Your task to perform on an android device: set the stopwatch Image 0: 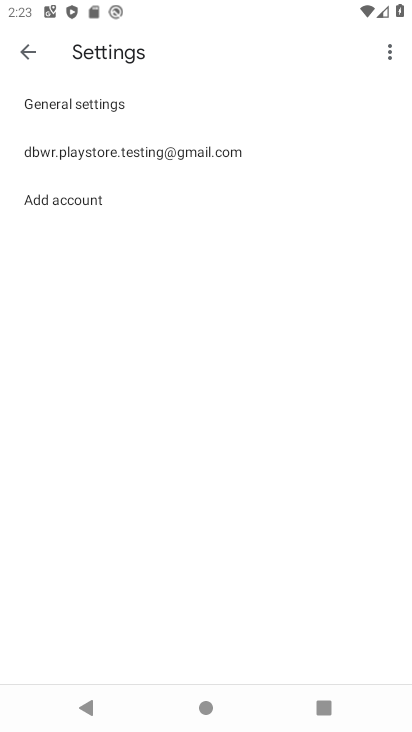
Step 0: press home button
Your task to perform on an android device: set the stopwatch Image 1: 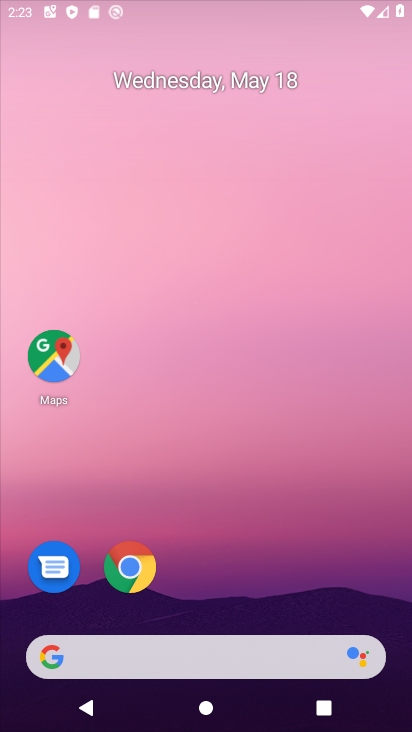
Step 1: drag from (219, 573) to (236, 188)
Your task to perform on an android device: set the stopwatch Image 2: 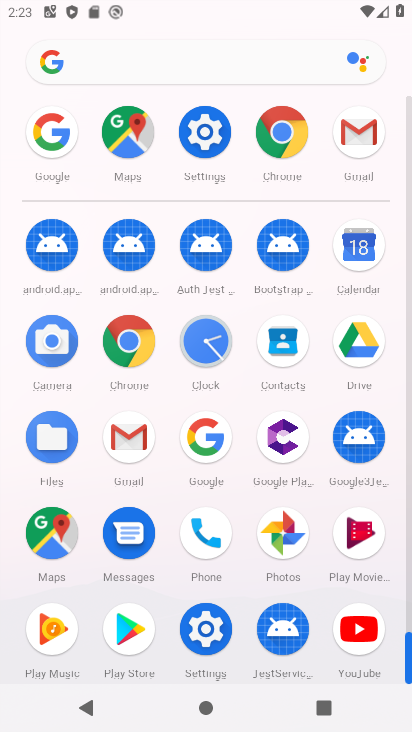
Step 2: click (184, 341)
Your task to perform on an android device: set the stopwatch Image 3: 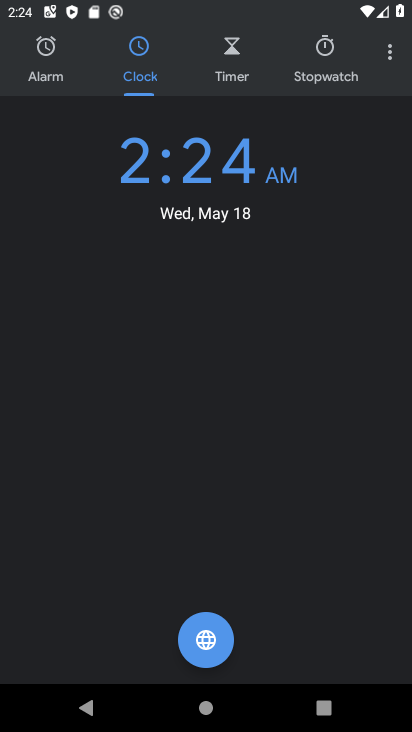
Step 3: click (322, 54)
Your task to perform on an android device: set the stopwatch Image 4: 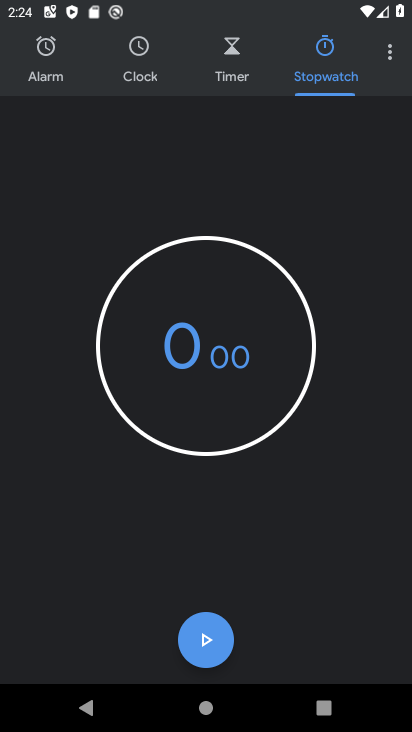
Step 4: task complete